Your task to perform on an android device: Do I have any events this weekend? Image 0: 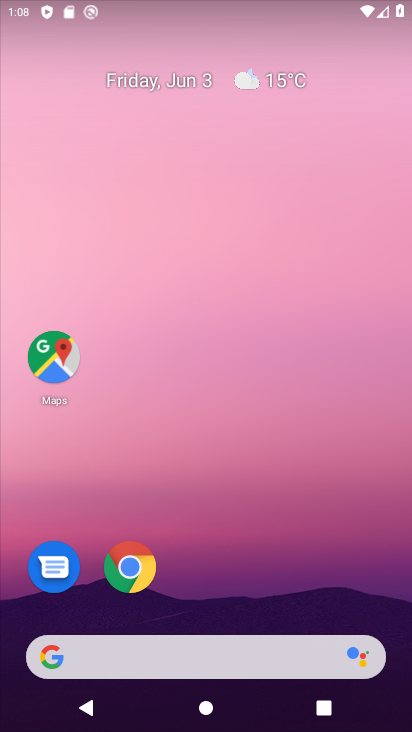
Step 0: drag from (229, 571) to (200, 95)
Your task to perform on an android device: Do I have any events this weekend? Image 1: 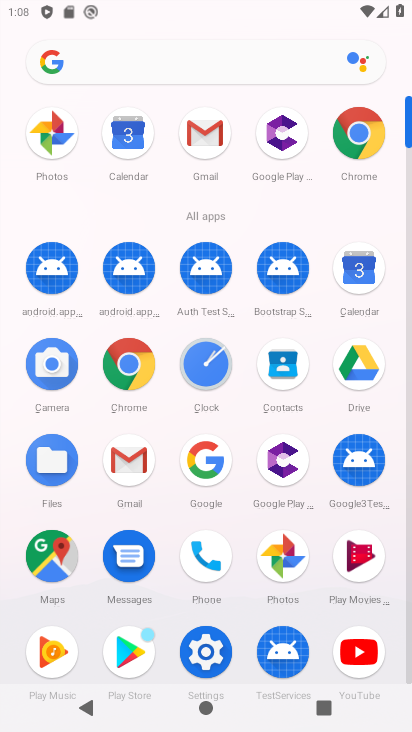
Step 1: click (349, 271)
Your task to perform on an android device: Do I have any events this weekend? Image 2: 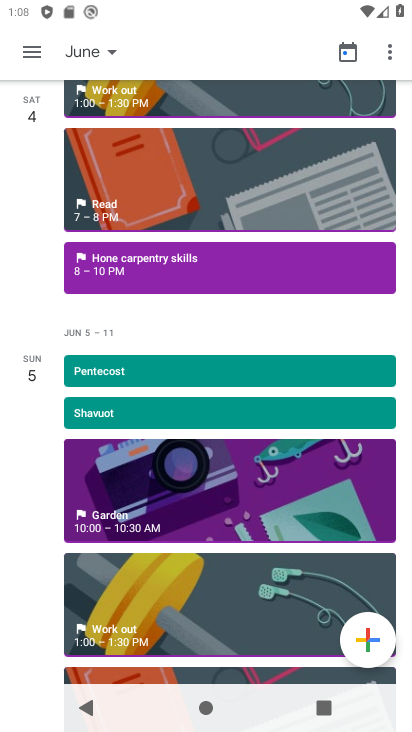
Step 2: task complete